Your task to perform on an android device: turn off location Image 0: 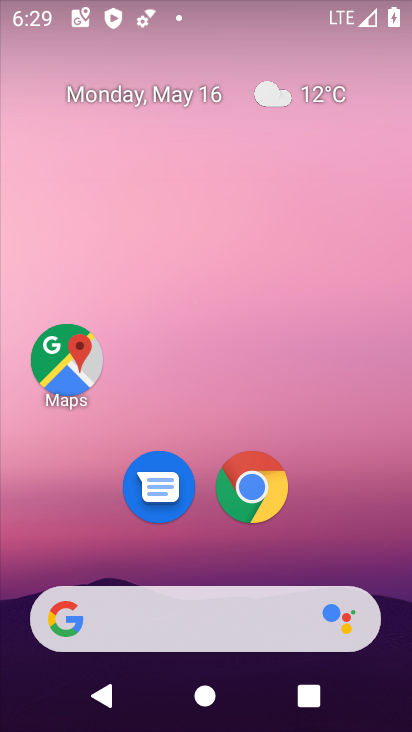
Step 0: drag from (282, 558) to (185, 7)
Your task to perform on an android device: turn off location Image 1: 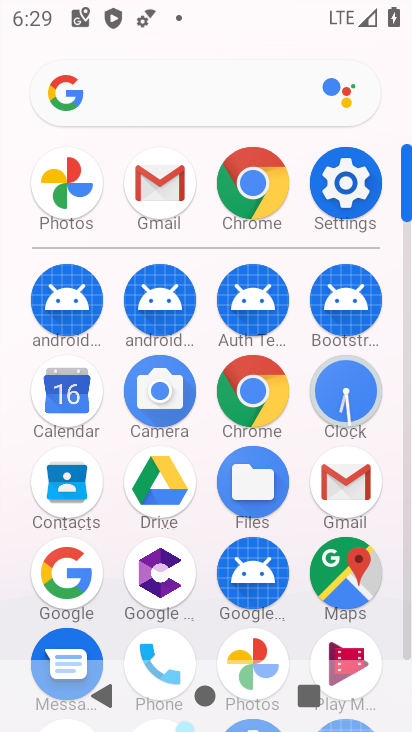
Step 1: click (329, 173)
Your task to perform on an android device: turn off location Image 2: 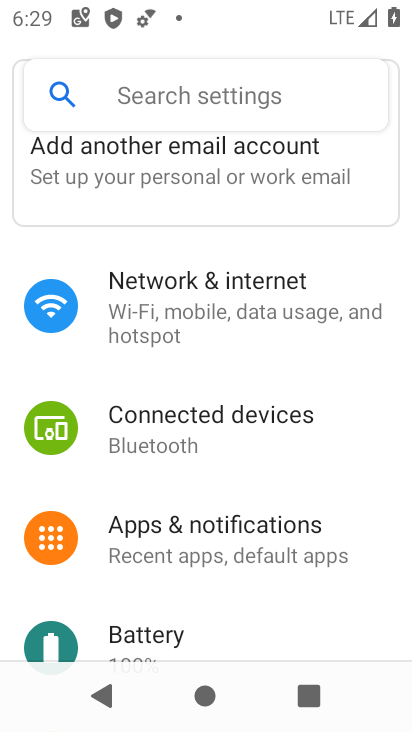
Step 2: drag from (144, 575) to (172, 10)
Your task to perform on an android device: turn off location Image 3: 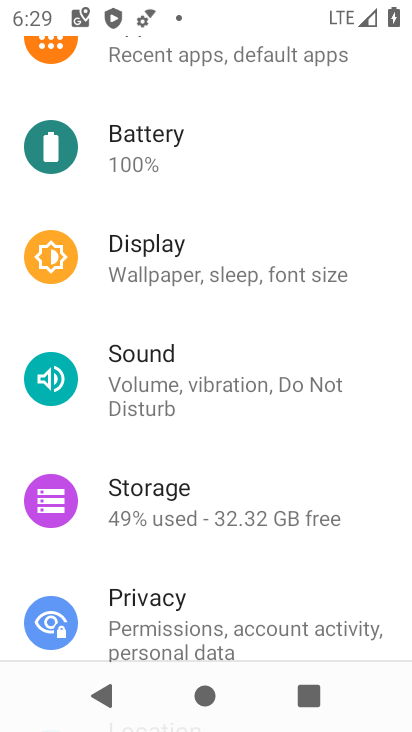
Step 3: drag from (107, 490) to (232, 10)
Your task to perform on an android device: turn off location Image 4: 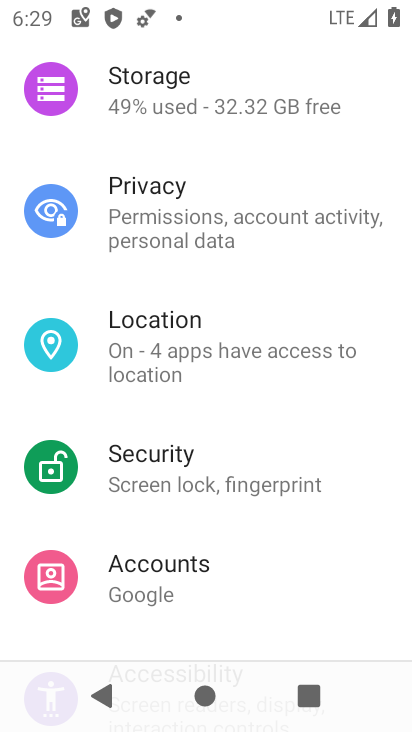
Step 4: click (190, 323)
Your task to perform on an android device: turn off location Image 5: 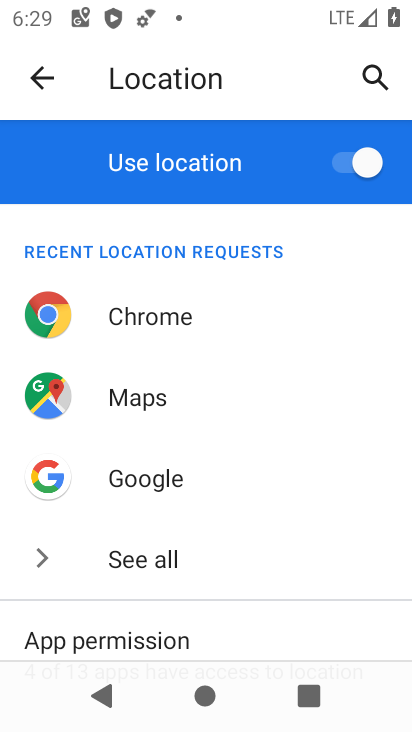
Step 5: click (365, 155)
Your task to perform on an android device: turn off location Image 6: 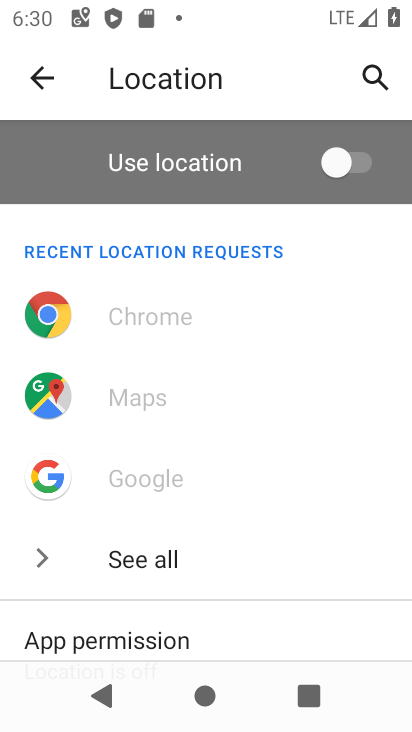
Step 6: task complete